Your task to perform on an android device: change the clock style Image 0: 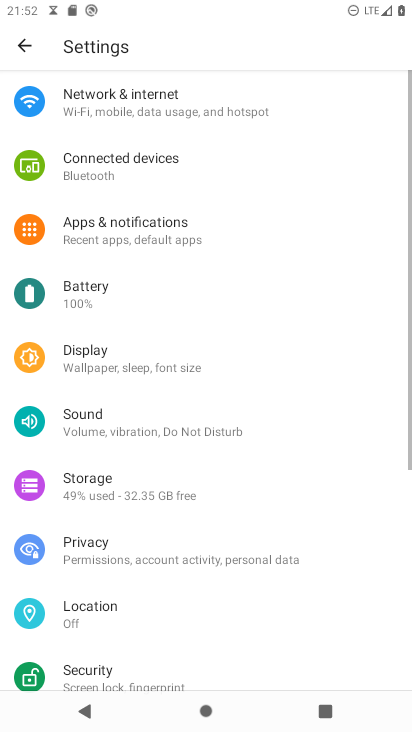
Step 0: press home button
Your task to perform on an android device: change the clock style Image 1: 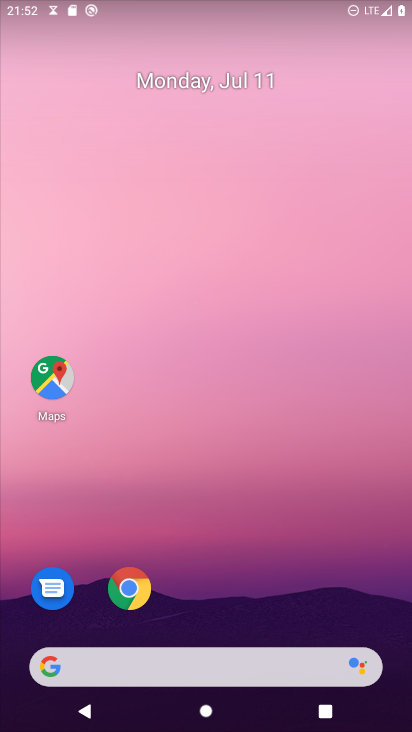
Step 1: drag from (181, 613) to (175, 181)
Your task to perform on an android device: change the clock style Image 2: 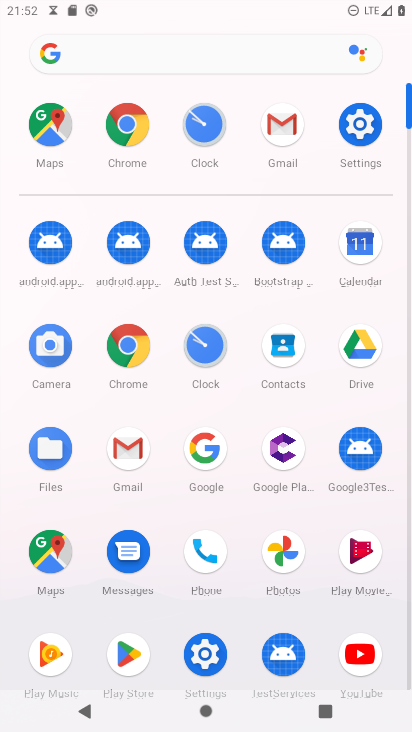
Step 2: click (200, 134)
Your task to perform on an android device: change the clock style Image 3: 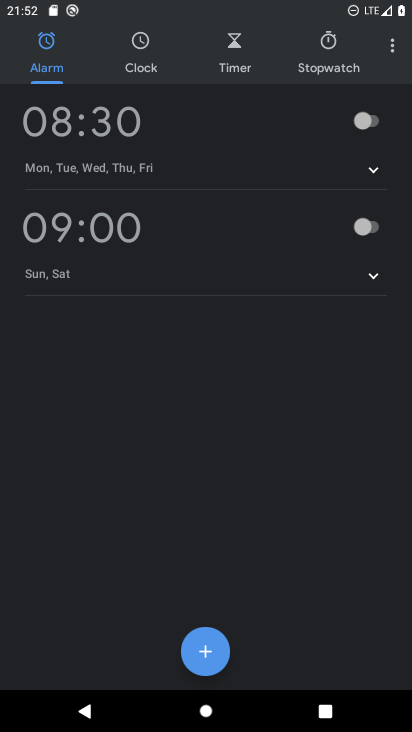
Step 3: click (397, 51)
Your task to perform on an android device: change the clock style Image 4: 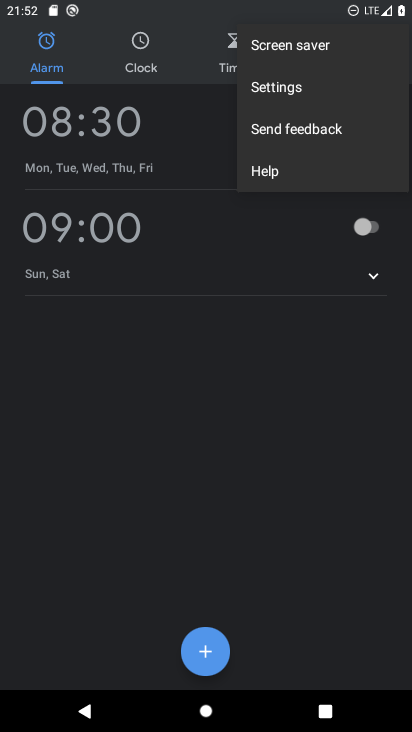
Step 4: click (274, 85)
Your task to perform on an android device: change the clock style Image 5: 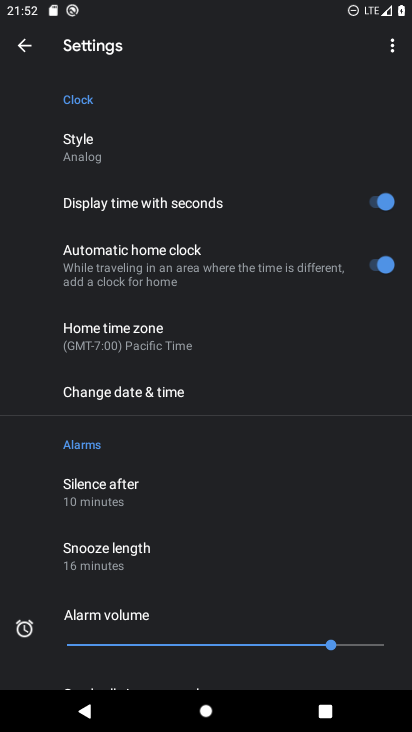
Step 5: click (67, 138)
Your task to perform on an android device: change the clock style Image 6: 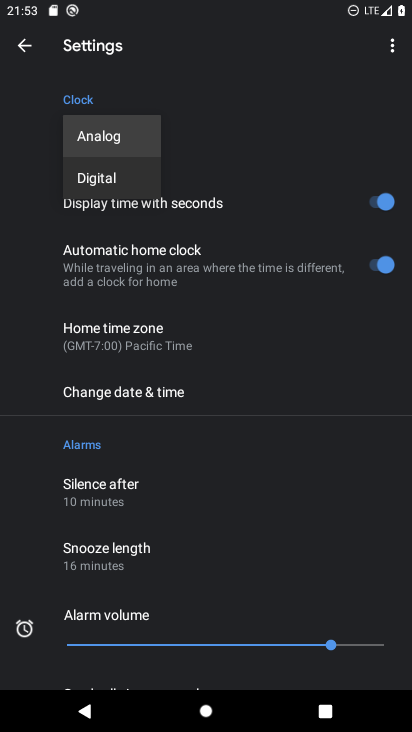
Step 6: click (98, 180)
Your task to perform on an android device: change the clock style Image 7: 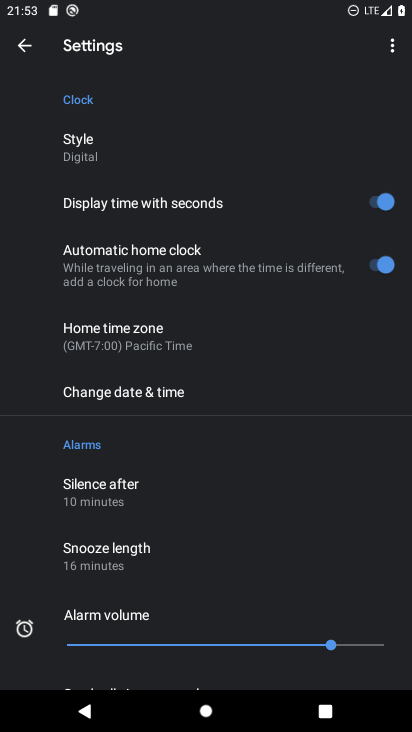
Step 7: task complete